Your task to perform on an android device: Go to wifi settings Image 0: 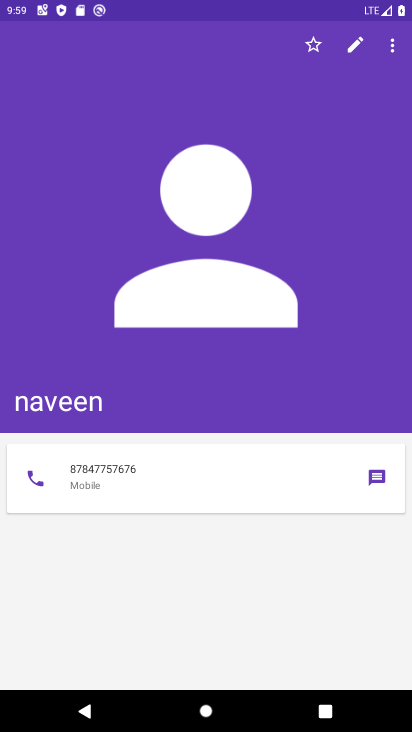
Step 0: press home button
Your task to perform on an android device: Go to wifi settings Image 1: 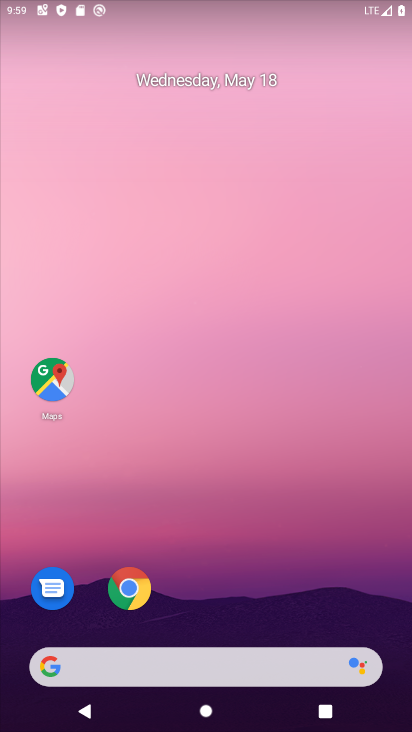
Step 1: drag from (323, 640) to (344, 5)
Your task to perform on an android device: Go to wifi settings Image 2: 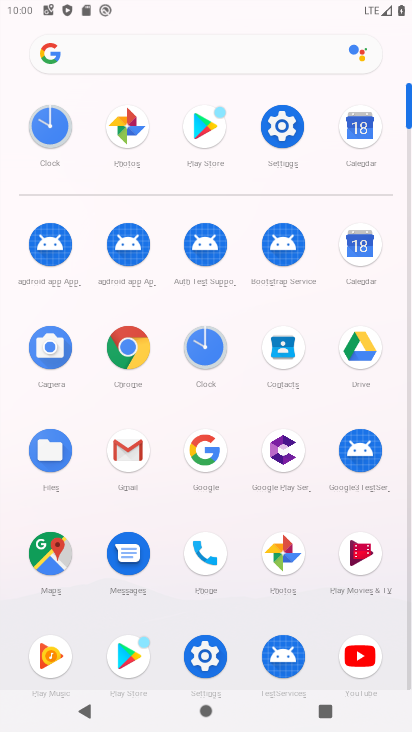
Step 2: click (283, 123)
Your task to perform on an android device: Go to wifi settings Image 3: 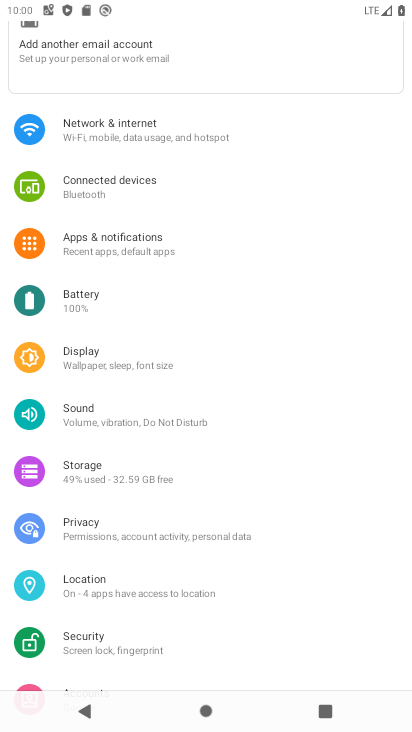
Step 3: click (130, 141)
Your task to perform on an android device: Go to wifi settings Image 4: 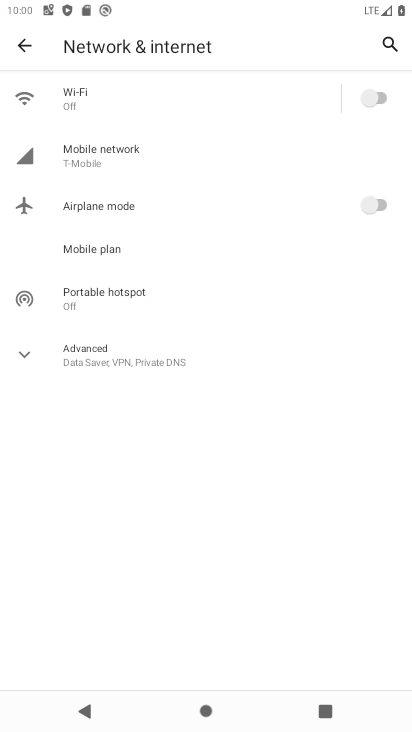
Step 4: click (67, 103)
Your task to perform on an android device: Go to wifi settings Image 5: 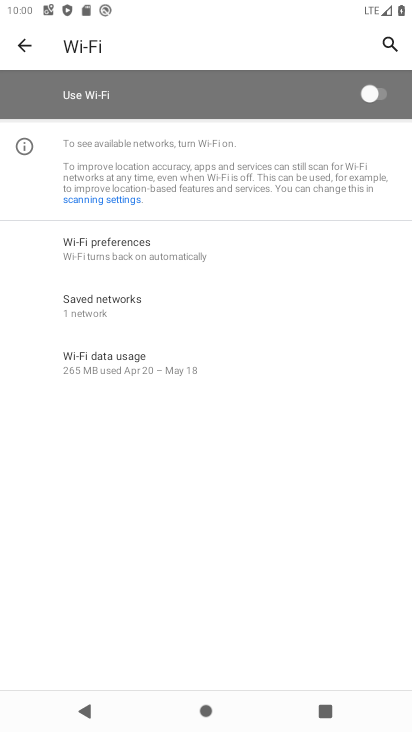
Step 5: task complete